Your task to perform on an android device: Open the phone app and click the voicemail tab. Image 0: 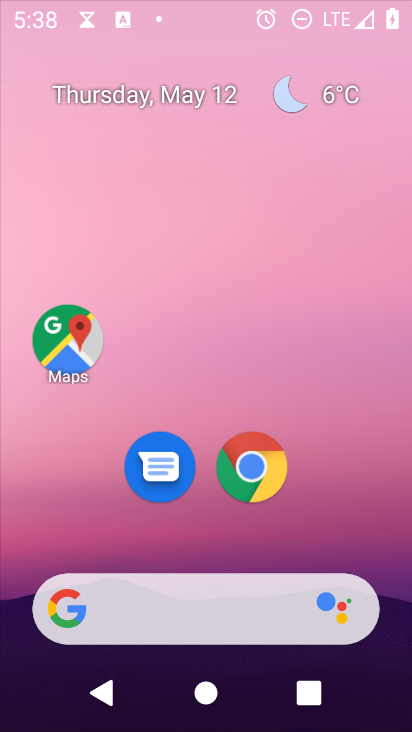
Step 0: drag from (329, 579) to (341, 9)
Your task to perform on an android device: Open the phone app and click the voicemail tab. Image 1: 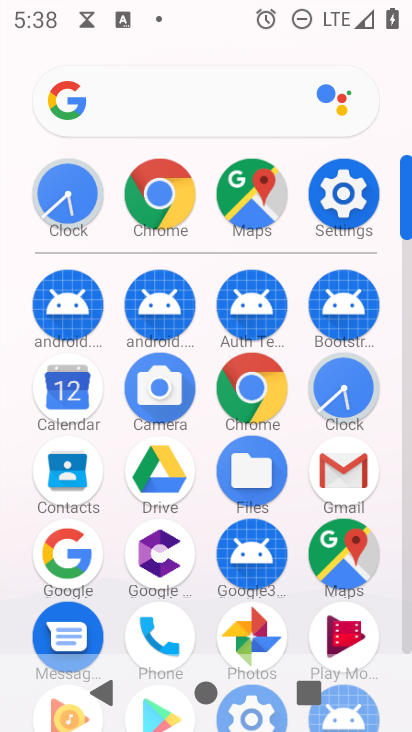
Step 1: click (243, 388)
Your task to perform on an android device: Open the phone app and click the voicemail tab. Image 2: 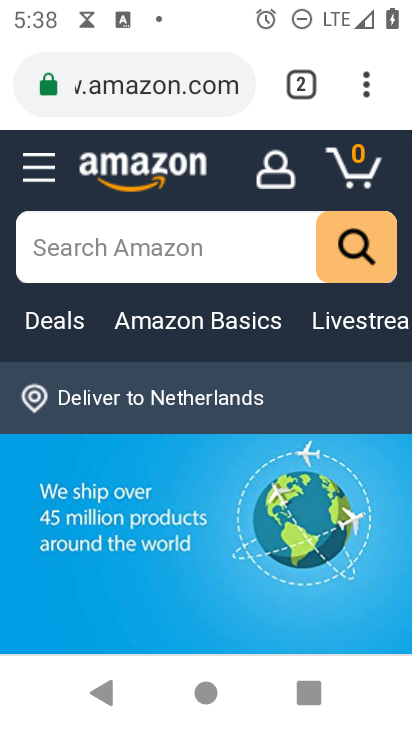
Step 2: press home button
Your task to perform on an android device: Open the phone app and click the voicemail tab. Image 3: 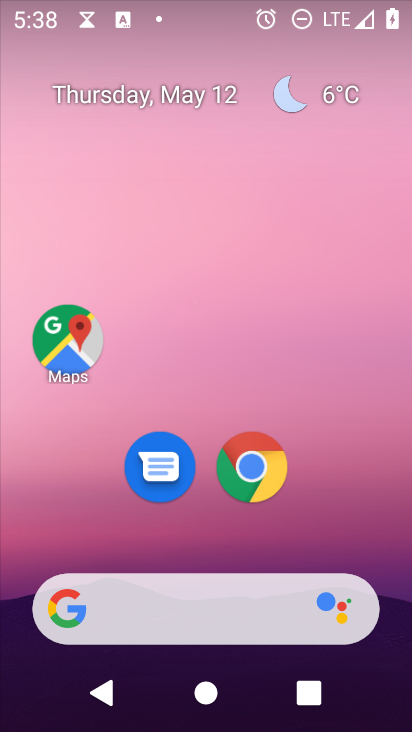
Step 3: drag from (269, 644) to (293, 104)
Your task to perform on an android device: Open the phone app and click the voicemail tab. Image 4: 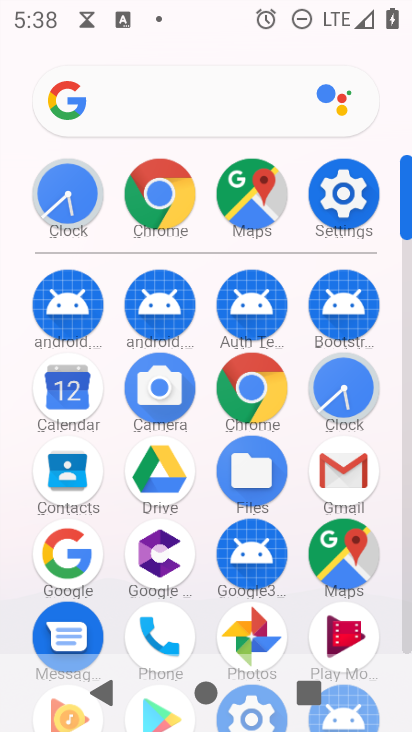
Step 4: click (166, 619)
Your task to perform on an android device: Open the phone app and click the voicemail tab. Image 5: 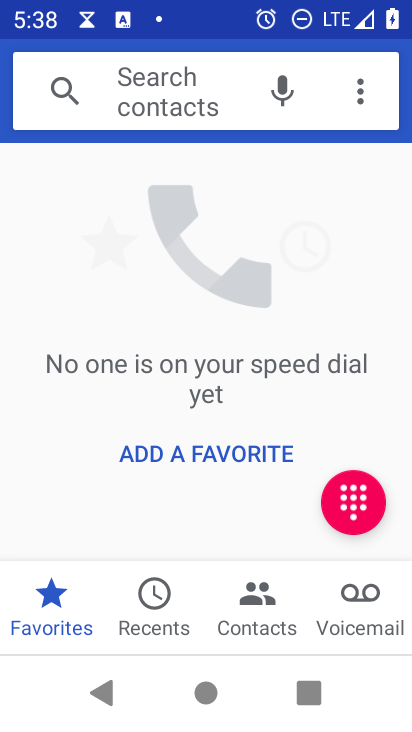
Step 5: click (364, 597)
Your task to perform on an android device: Open the phone app and click the voicemail tab. Image 6: 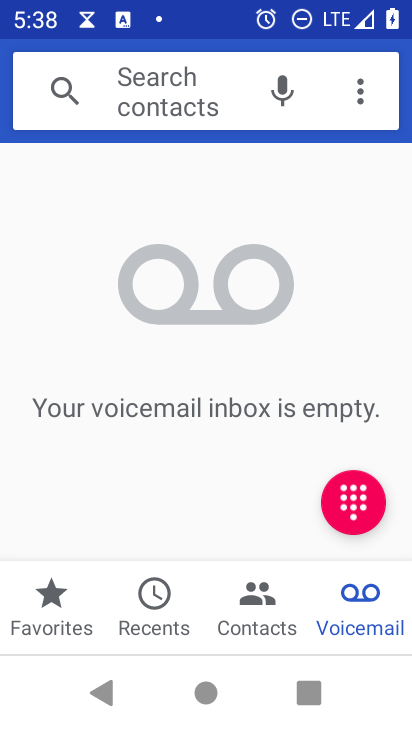
Step 6: task complete